Your task to perform on an android device: clear history in the chrome app Image 0: 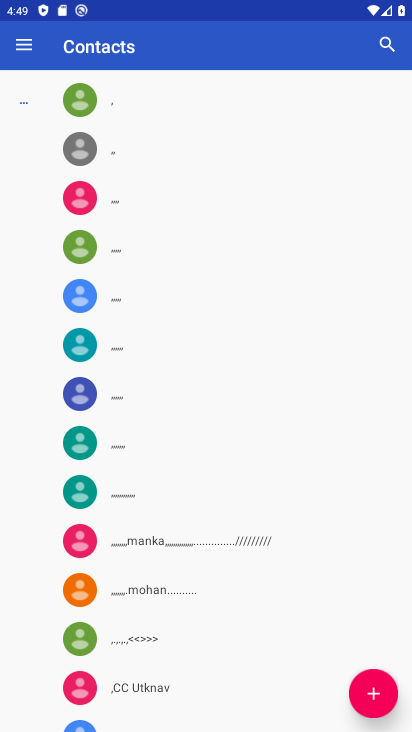
Step 0: press home button
Your task to perform on an android device: clear history in the chrome app Image 1: 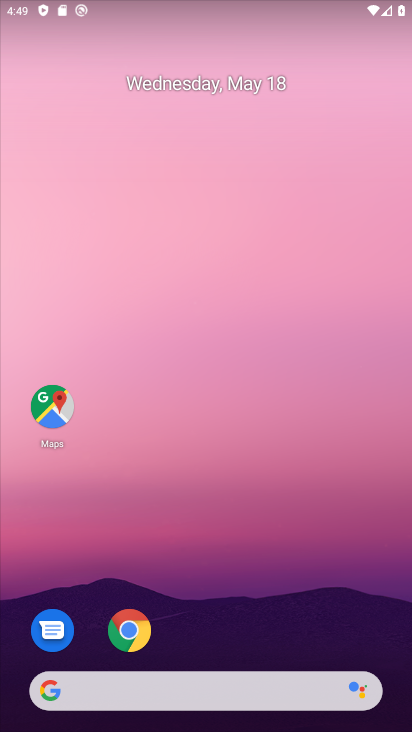
Step 1: click (136, 627)
Your task to perform on an android device: clear history in the chrome app Image 2: 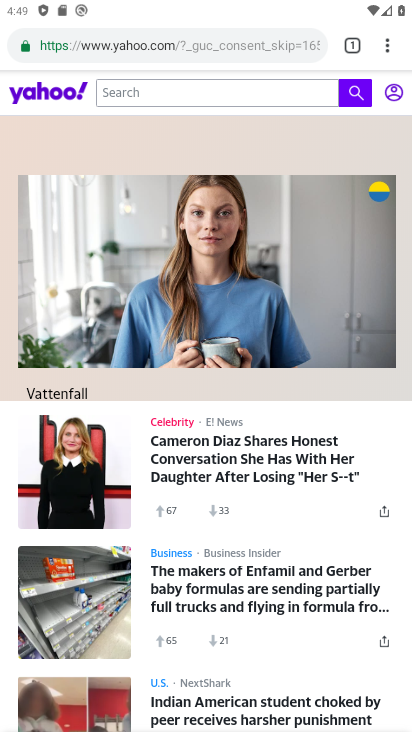
Step 2: click (351, 48)
Your task to perform on an android device: clear history in the chrome app Image 3: 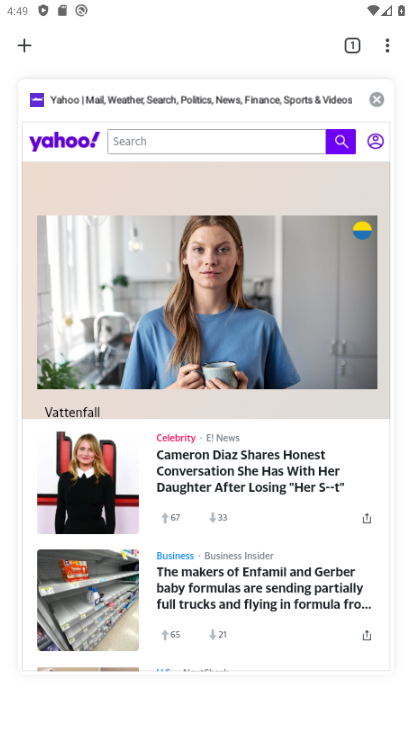
Step 3: click (380, 103)
Your task to perform on an android device: clear history in the chrome app Image 4: 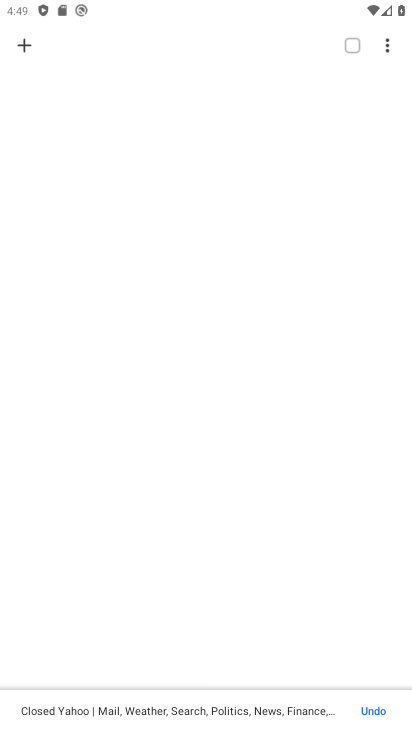
Step 4: click (21, 40)
Your task to perform on an android device: clear history in the chrome app Image 5: 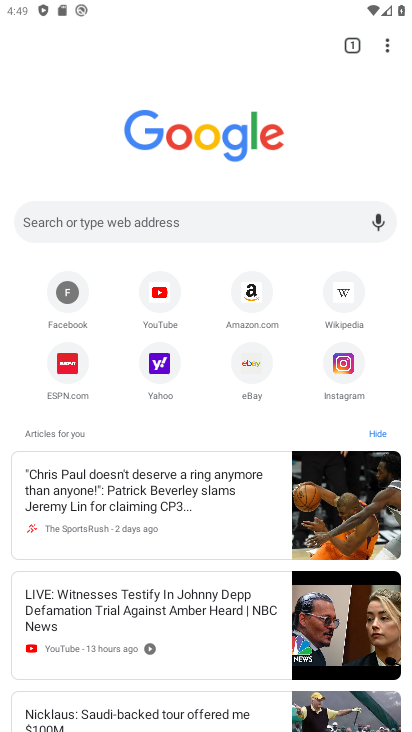
Step 5: click (388, 45)
Your task to perform on an android device: clear history in the chrome app Image 6: 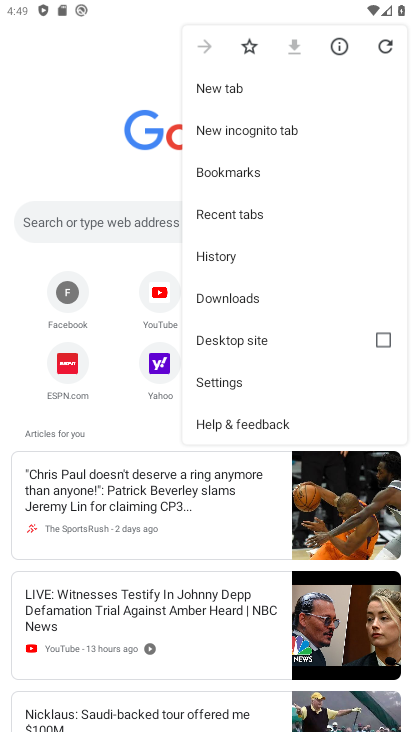
Step 6: click (219, 258)
Your task to perform on an android device: clear history in the chrome app Image 7: 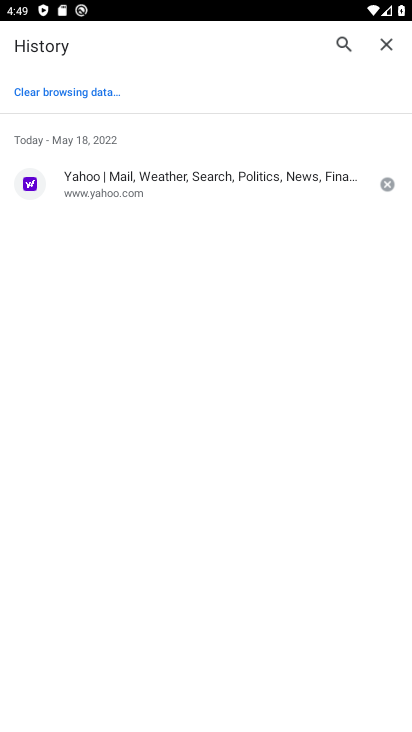
Step 7: click (75, 93)
Your task to perform on an android device: clear history in the chrome app Image 8: 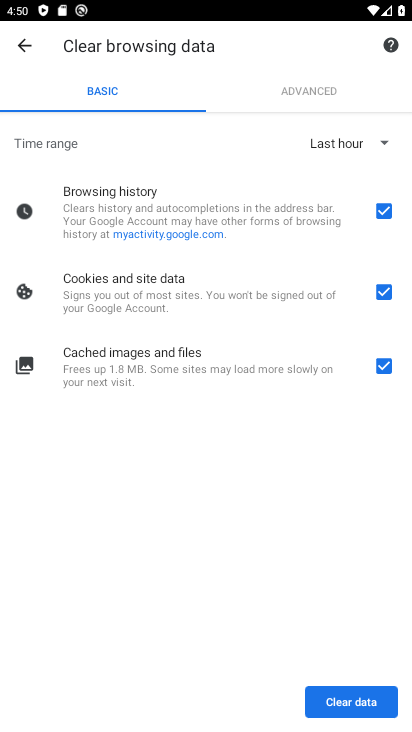
Step 8: click (361, 704)
Your task to perform on an android device: clear history in the chrome app Image 9: 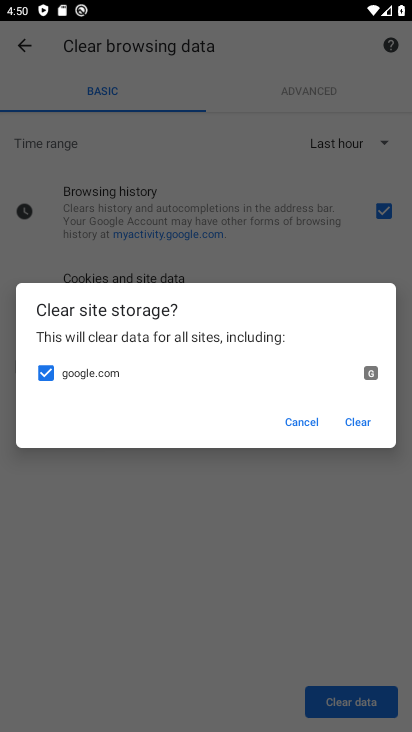
Step 9: click (359, 423)
Your task to perform on an android device: clear history in the chrome app Image 10: 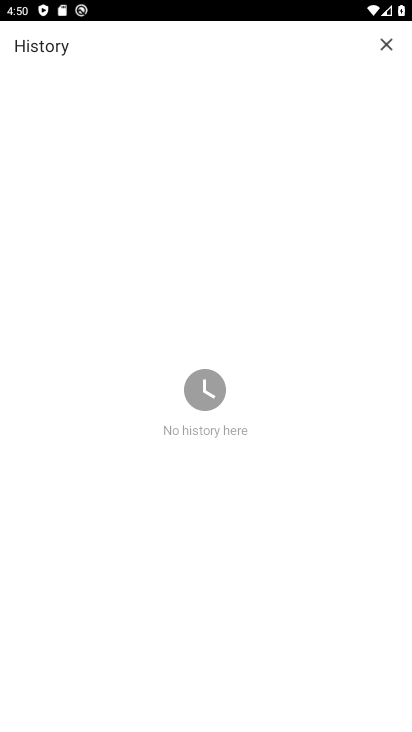
Step 10: task complete